Your task to perform on an android device: open app "Speedtest by Ookla" (install if not already installed), go to login, and select forgot password Image 0: 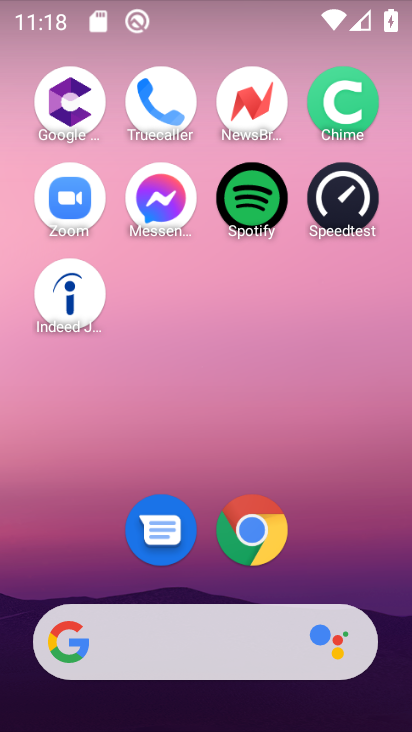
Step 0: drag from (144, 644) to (364, 102)
Your task to perform on an android device: open app "Speedtest by Ookla" (install if not already installed), go to login, and select forgot password Image 1: 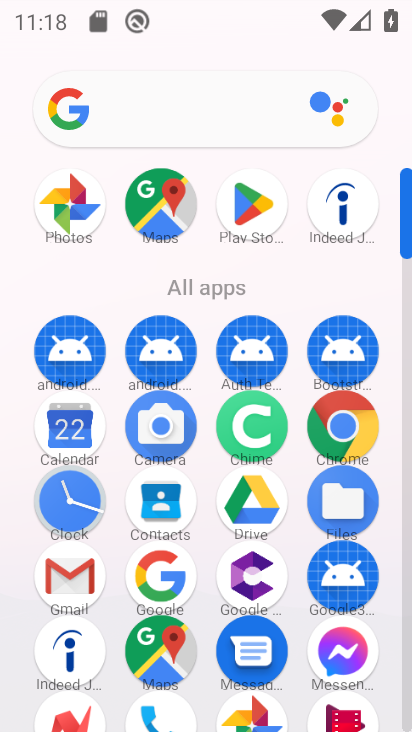
Step 1: click (250, 211)
Your task to perform on an android device: open app "Speedtest by Ookla" (install if not already installed), go to login, and select forgot password Image 2: 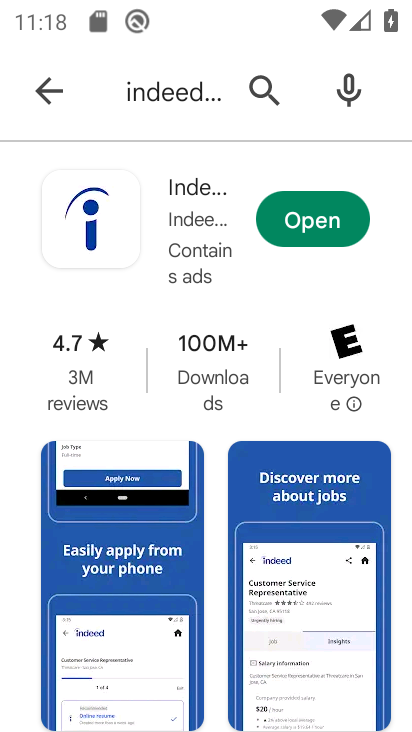
Step 2: press home button
Your task to perform on an android device: open app "Speedtest by Ookla" (install if not already installed), go to login, and select forgot password Image 3: 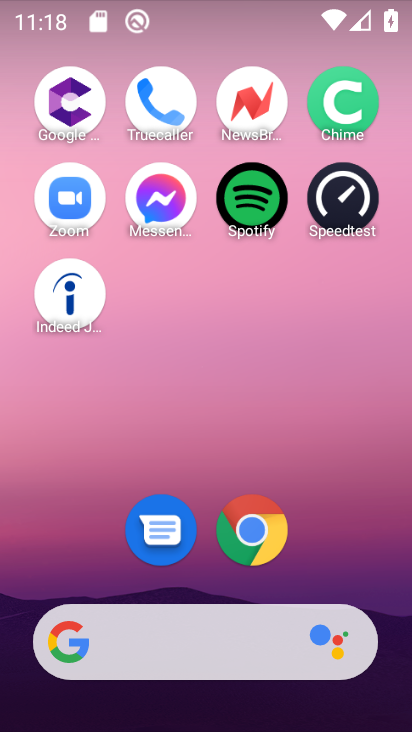
Step 3: drag from (161, 608) to (174, 84)
Your task to perform on an android device: open app "Speedtest by Ookla" (install if not already installed), go to login, and select forgot password Image 4: 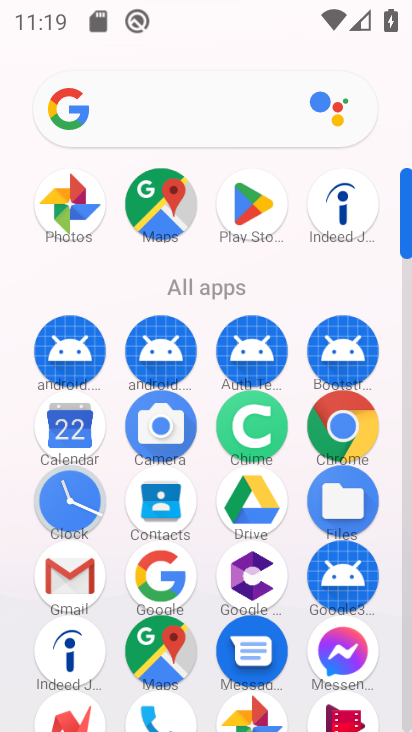
Step 4: click (253, 209)
Your task to perform on an android device: open app "Speedtest by Ookla" (install if not already installed), go to login, and select forgot password Image 5: 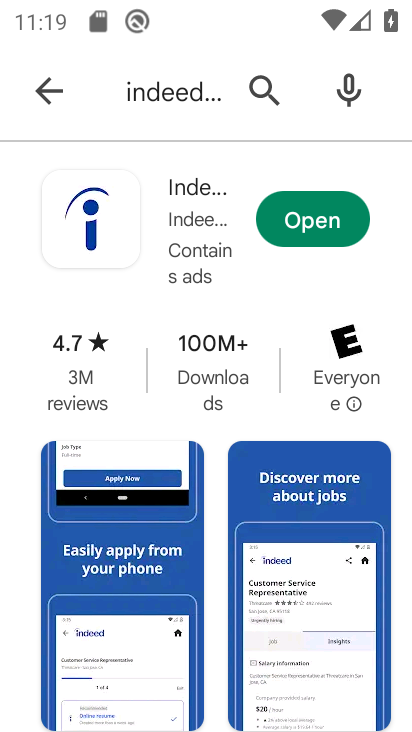
Step 5: press back button
Your task to perform on an android device: open app "Speedtest by Ookla" (install if not already installed), go to login, and select forgot password Image 6: 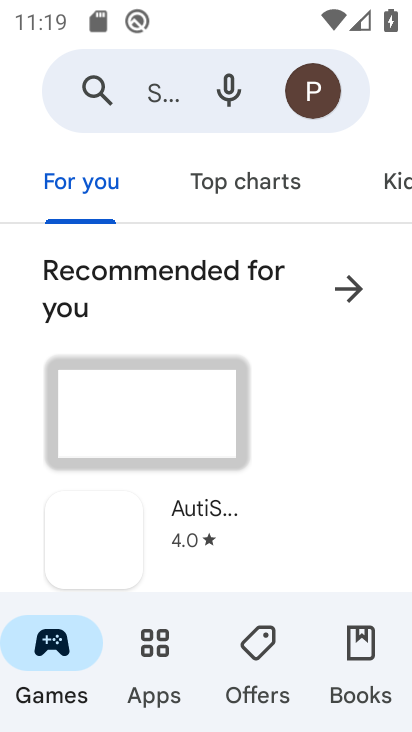
Step 6: click (161, 96)
Your task to perform on an android device: open app "Speedtest by Ookla" (install if not already installed), go to login, and select forgot password Image 7: 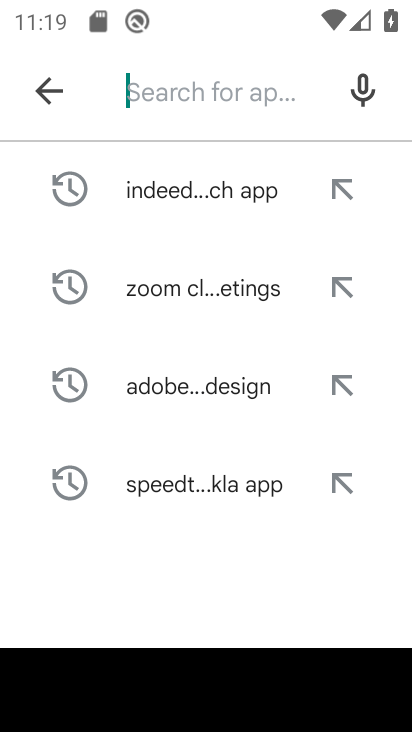
Step 7: click (258, 499)
Your task to perform on an android device: open app "Speedtest by Ookla" (install if not already installed), go to login, and select forgot password Image 8: 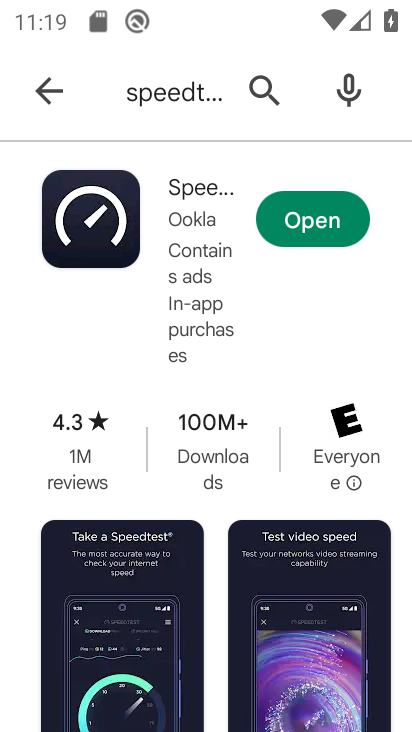
Step 8: click (306, 218)
Your task to perform on an android device: open app "Speedtest by Ookla" (install if not already installed), go to login, and select forgot password Image 9: 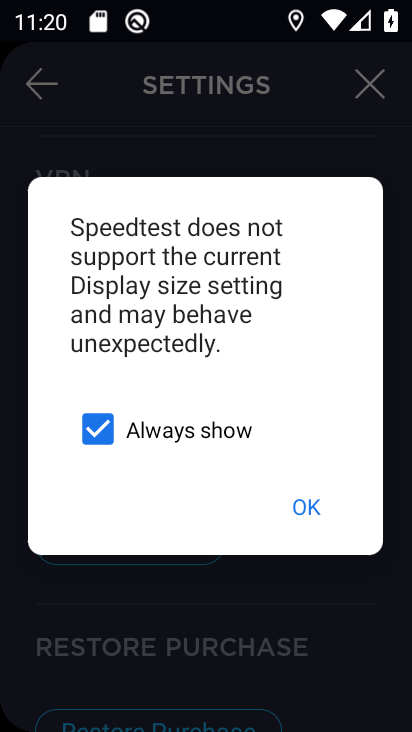
Step 9: click (308, 512)
Your task to perform on an android device: open app "Speedtest by Ookla" (install if not already installed), go to login, and select forgot password Image 10: 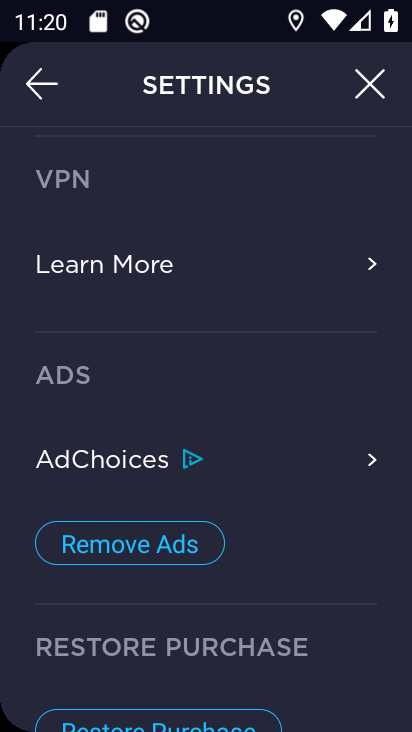
Step 10: task complete